Your task to perform on an android device: set the timer Image 0: 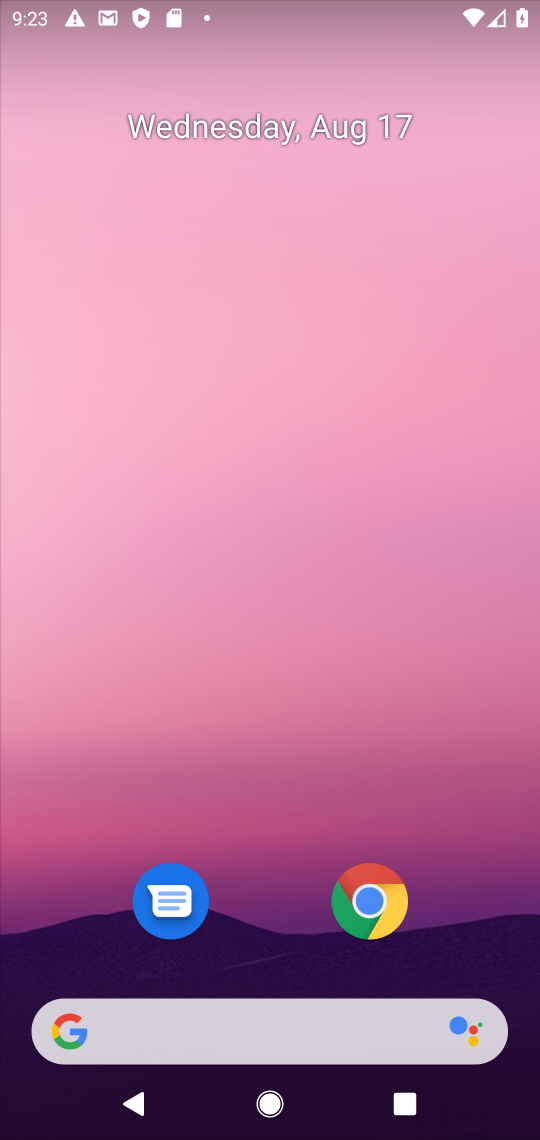
Step 0: drag from (251, 880) to (286, 224)
Your task to perform on an android device: set the timer Image 1: 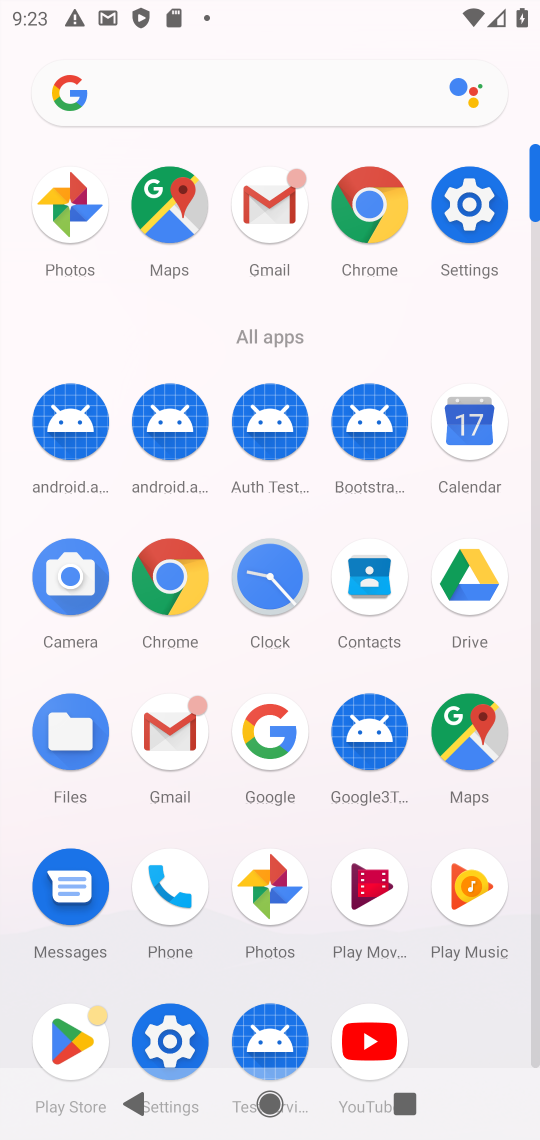
Step 1: click (261, 573)
Your task to perform on an android device: set the timer Image 2: 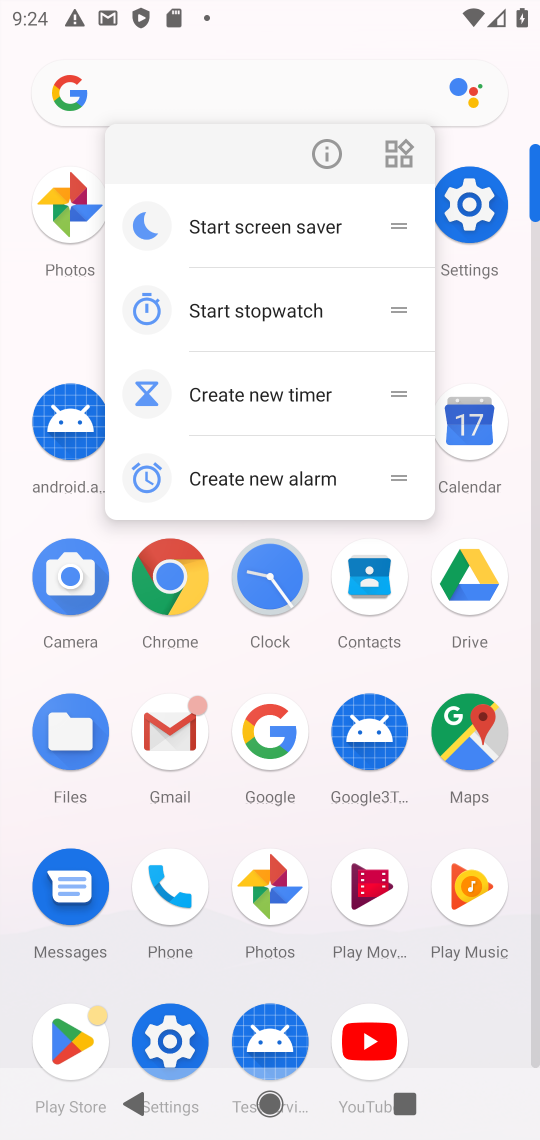
Step 2: click (263, 595)
Your task to perform on an android device: set the timer Image 3: 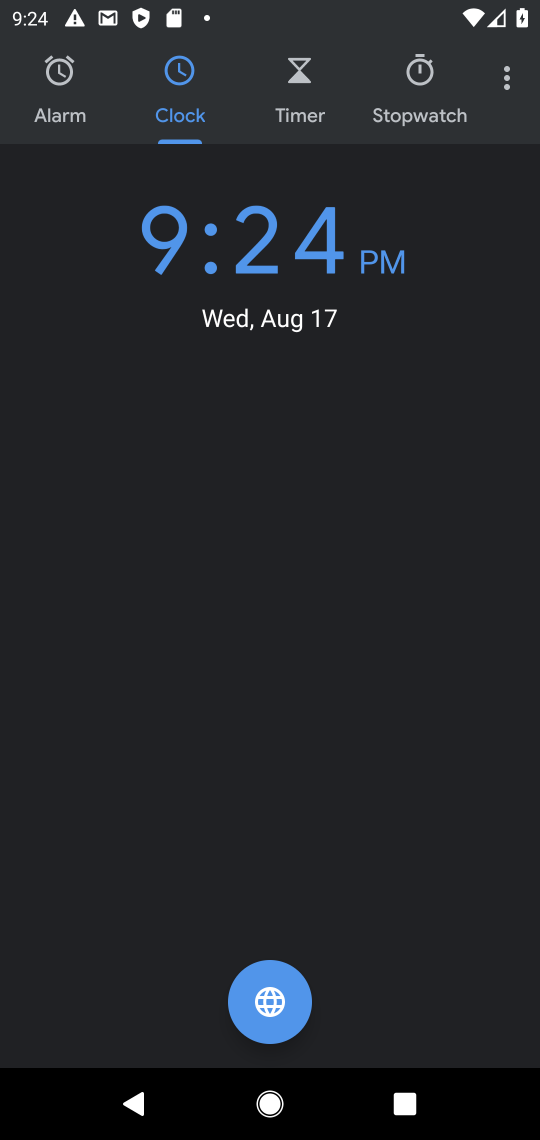
Step 3: click (332, 102)
Your task to perform on an android device: set the timer Image 4: 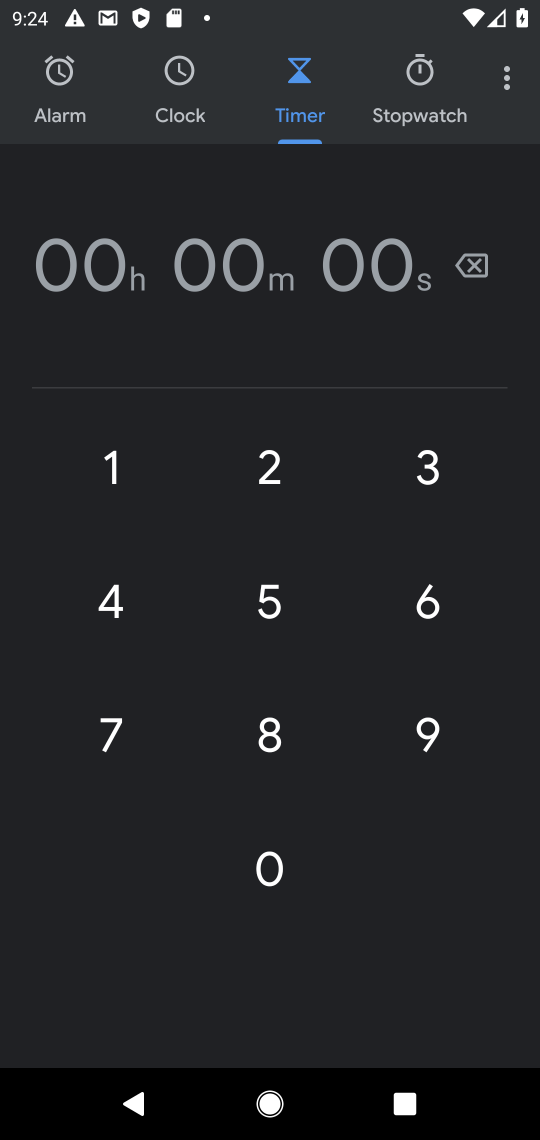
Step 4: click (257, 616)
Your task to perform on an android device: set the timer Image 5: 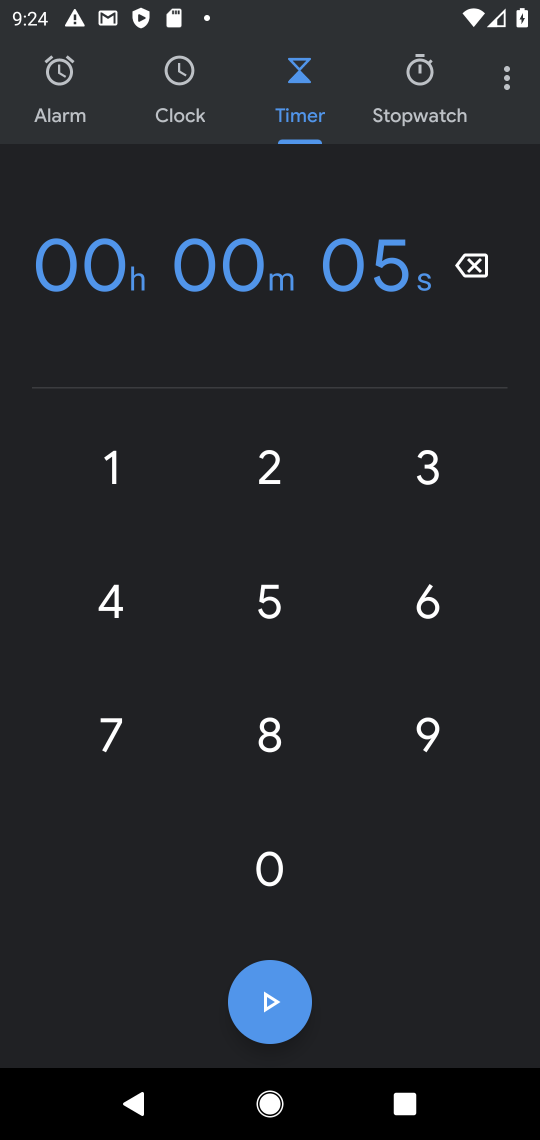
Step 5: task complete